Your task to perform on an android device: Open Google Maps and go to "Timeline" Image 0: 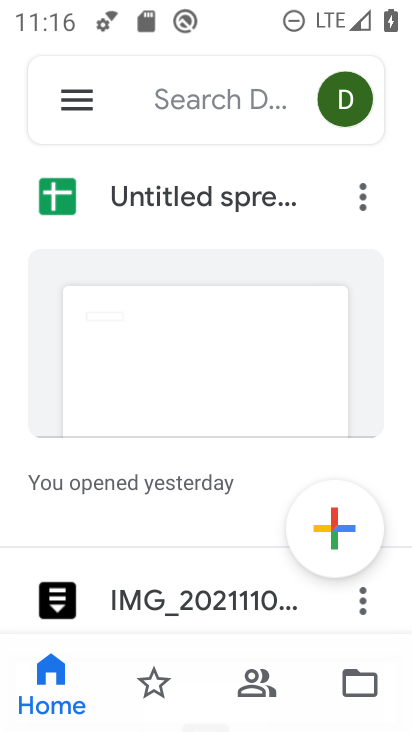
Step 0: press home button
Your task to perform on an android device: Open Google Maps and go to "Timeline" Image 1: 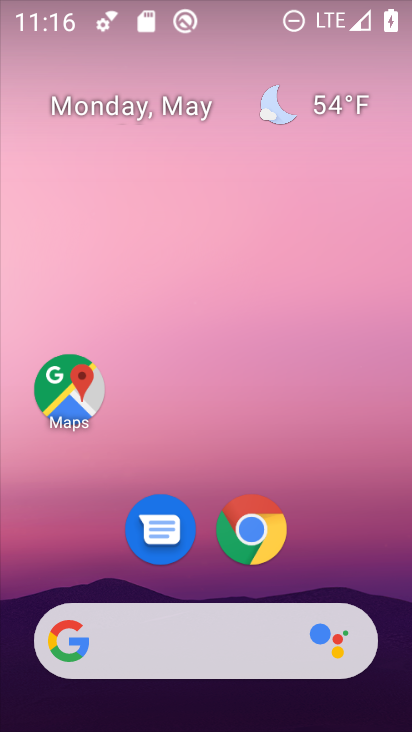
Step 1: click (82, 386)
Your task to perform on an android device: Open Google Maps and go to "Timeline" Image 2: 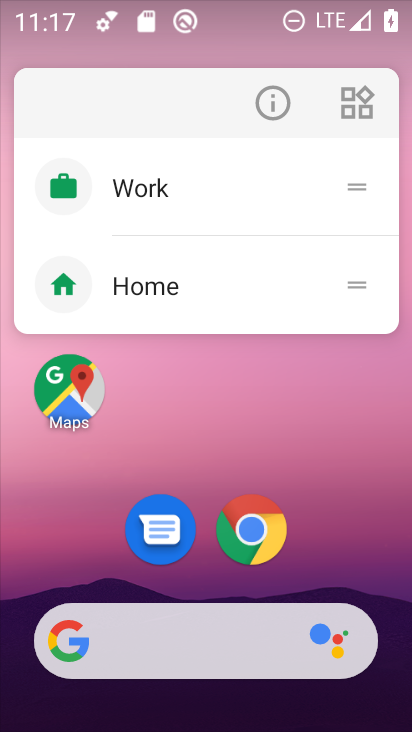
Step 2: click (82, 386)
Your task to perform on an android device: Open Google Maps and go to "Timeline" Image 3: 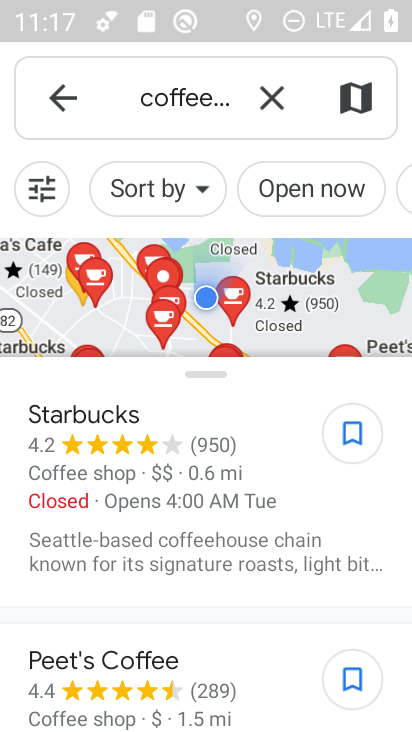
Step 3: click (60, 97)
Your task to perform on an android device: Open Google Maps and go to "Timeline" Image 4: 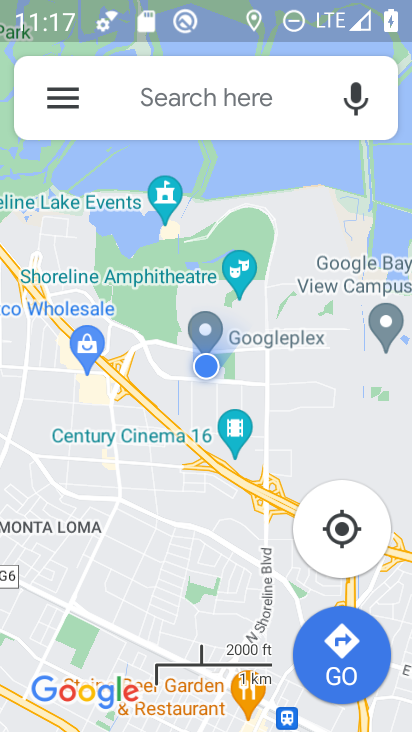
Step 4: click (60, 97)
Your task to perform on an android device: Open Google Maps and go to "Timeline" Image 5: 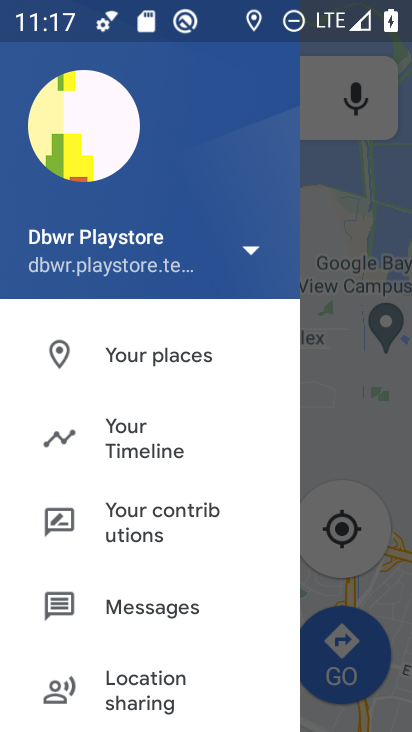
Step 5: click (123, 451)
Your task to perform on an android device: Open Google Maps and go to "Timeline" Image 6: 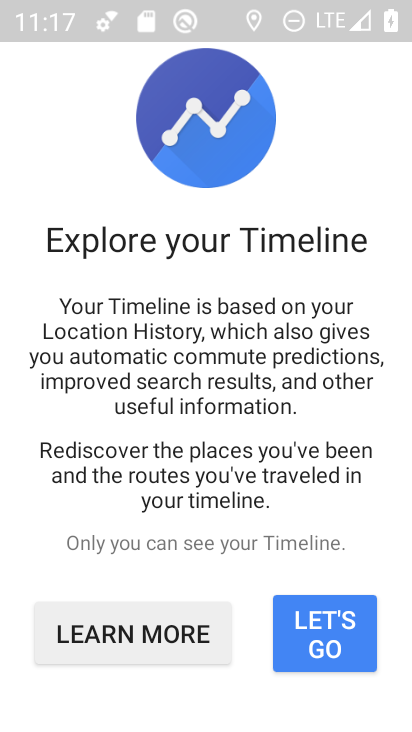
Step 6: click (320, 633)
Your task to perform on an android device: Open Google Maps and go to "Timeline" Image 7: 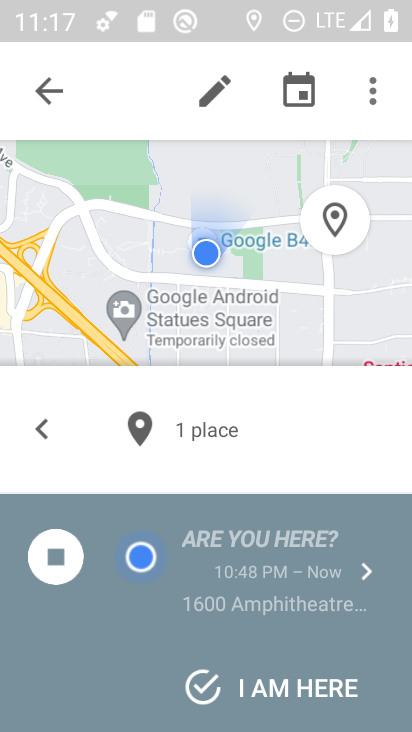
Step 7: task complete